Your task to perform on an android device: Open settings Image 0: 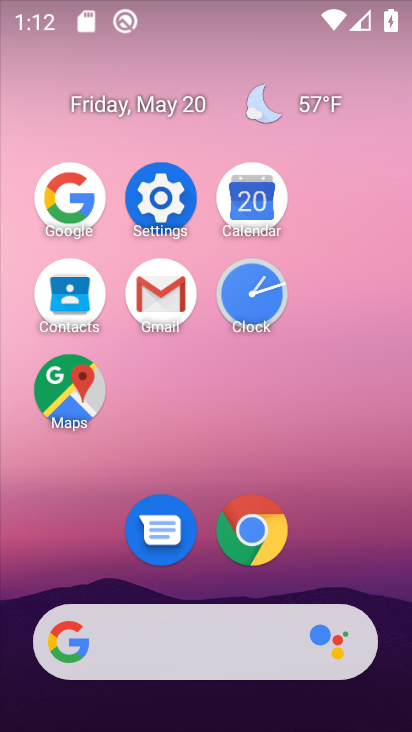
Step 0: click (161, 193)
Your task to perform on an android device: Open settings Image 1: 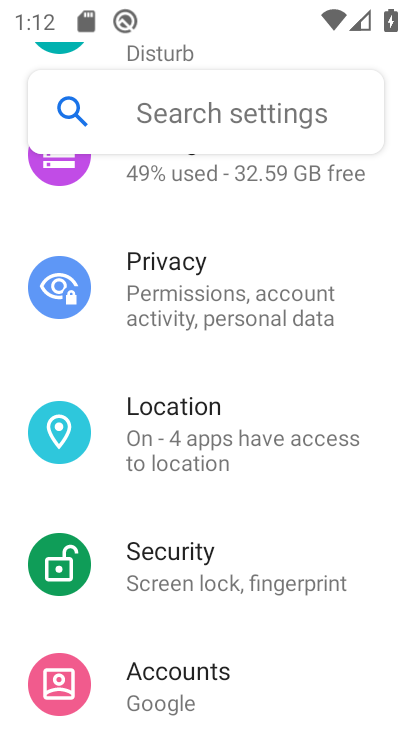
Step 1: task complete